Your task to perform on an android device: When is my next appointment? Image 0: 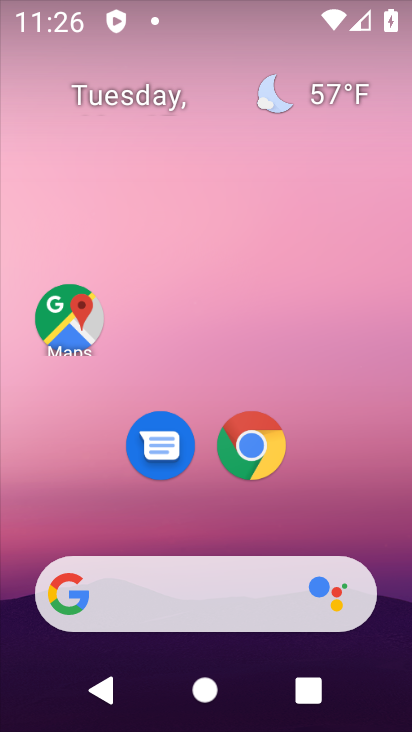
Step 0: drag from (387, 500) to (380, 150)
Your task to perform on an android device: When is my next appointment? Image 1: 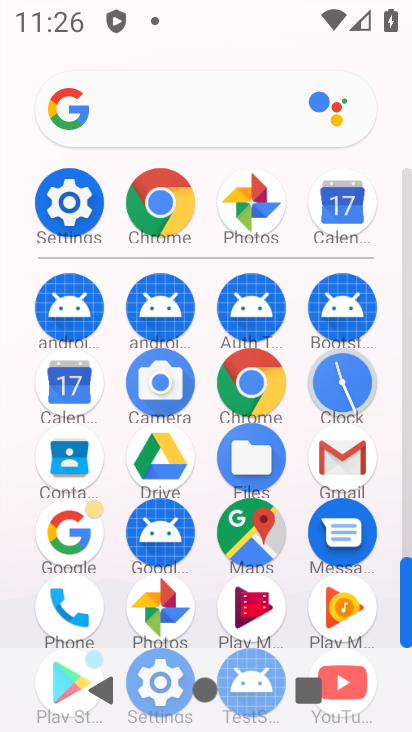
Step 1: click (347, 219)
Your task to perform on an android device: When is my next appointment? Image 2: 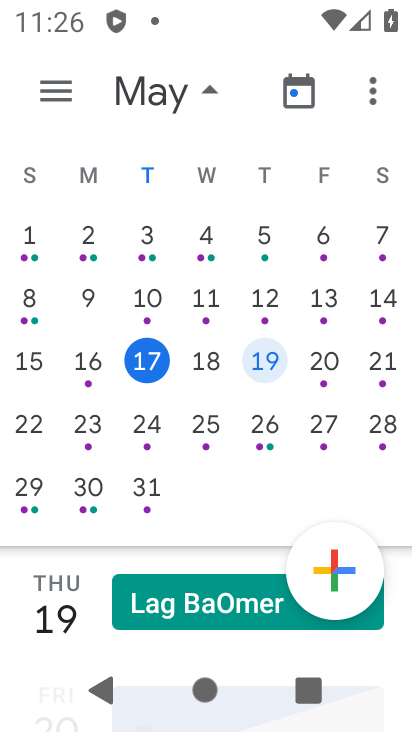
Step 2: drag from (243, 528) to (244, 269)
Your task to perform on an android device: When is my next appointment? Image 3: 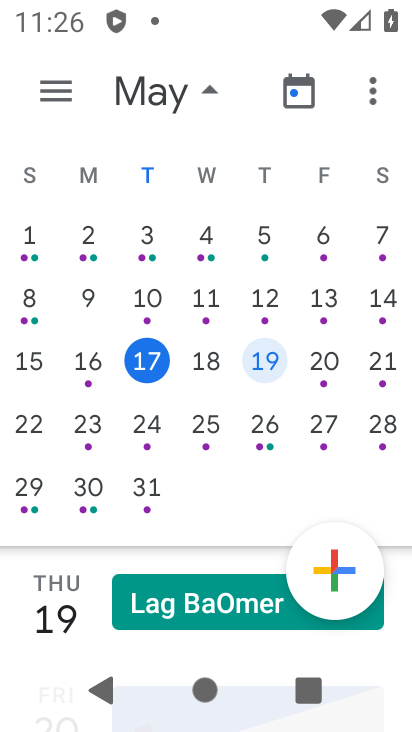
Step 3: click (195, 606)
Your task to perform on an android device: When is my next appointment? Image 4: 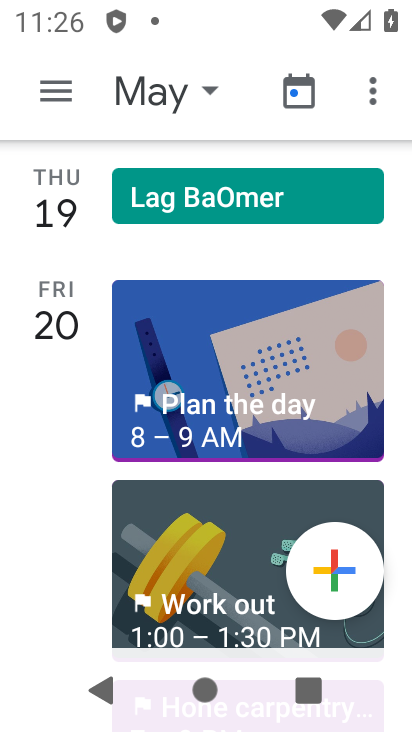
Step 4: task complete